Your task to perform on an android device: turn on improve location accuracy Image 0: 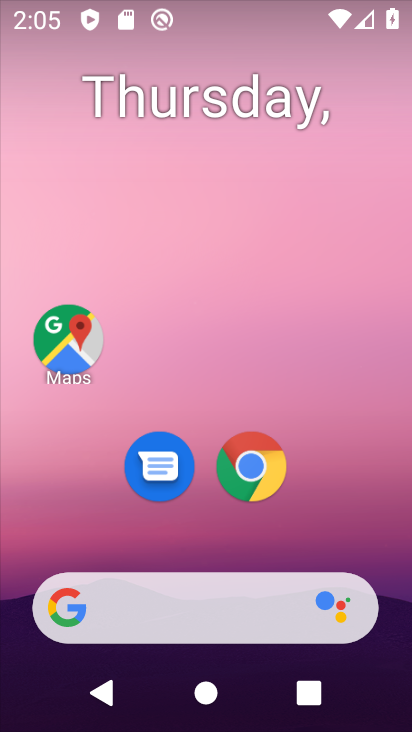
Step 0: drag from (213, 497) to (223, 83)
Your task to perform on an android device: turn on improve location accuracy Image 1: 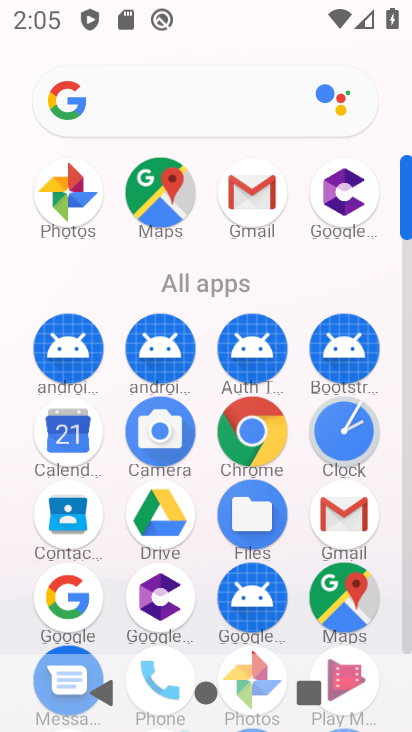
Step 1: drag from (213, 457) to (213, 217)
Your task to perform on an android device: turn on improve location accuracy Image 2: 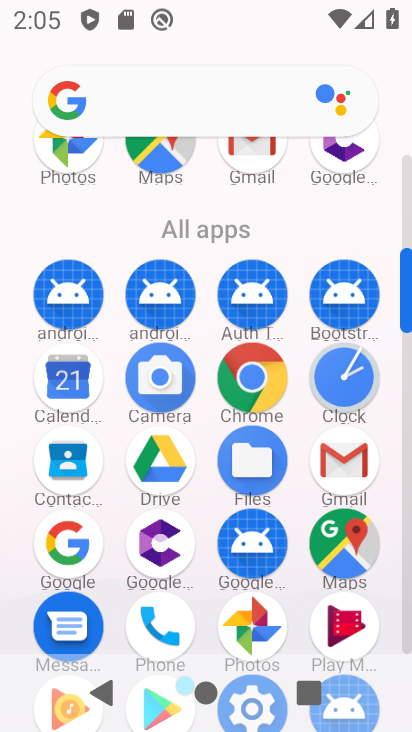
Step 2: drag from (209, 620) to (243, 307)
Your task to perform on an android device: turn on improve location accuracy Image 3: 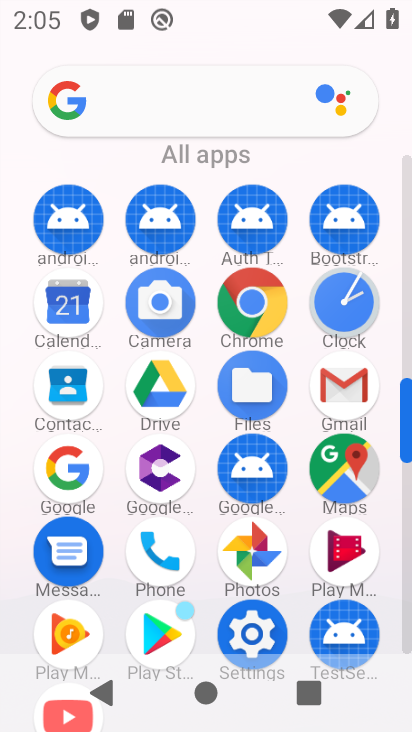
Step 3: click (241, 631)
Your task to perform on an android device: turn on improve location accuracy Image 4: 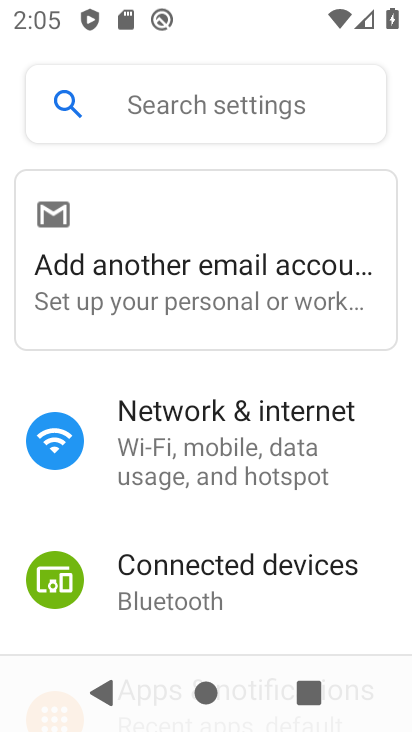
Step 4: drag from (271, 598) to (305, 284)
Your task to perform on an android device: turn on improve location accuracy Image 5: 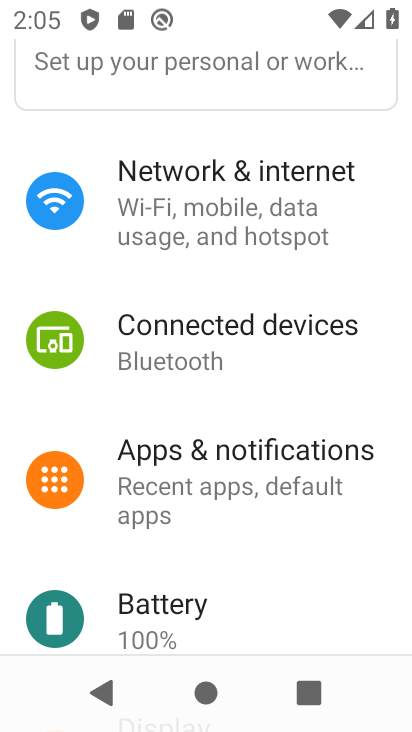
Step 5: drag from (264, 520) to (327, 227)
Your task to perform on an android device: turn on improve location accuracy Image 6: 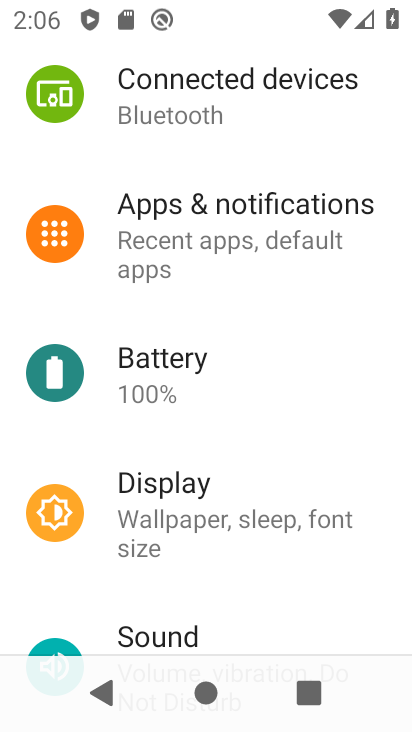
Step 6: drag from (247, 488) to (271, 217)
Your task to perform on an android device: turn on improve location accuracy Image 7: 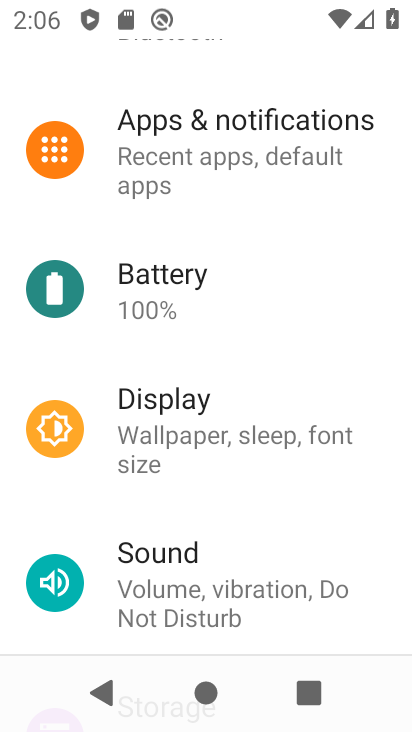
Step 7: drag from (219, 543) to (246, 207)
Your task to perform on an android device: turn on improve location accuracy Image 8: 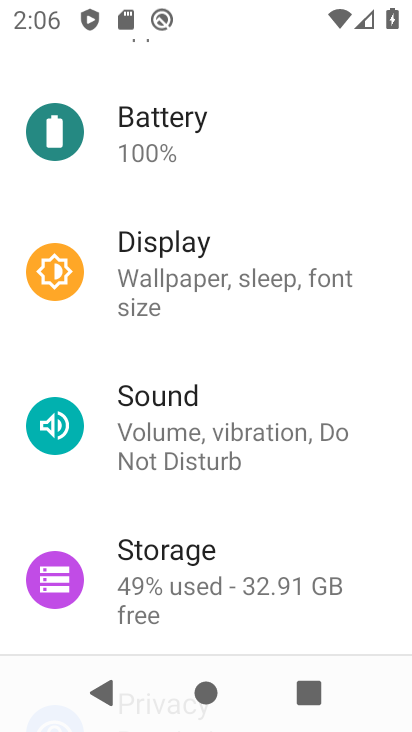
Step 8: drag from (252, 517) to (282, 255)
Your task to perform on an android device: turn on improve location accuracy Image 9: 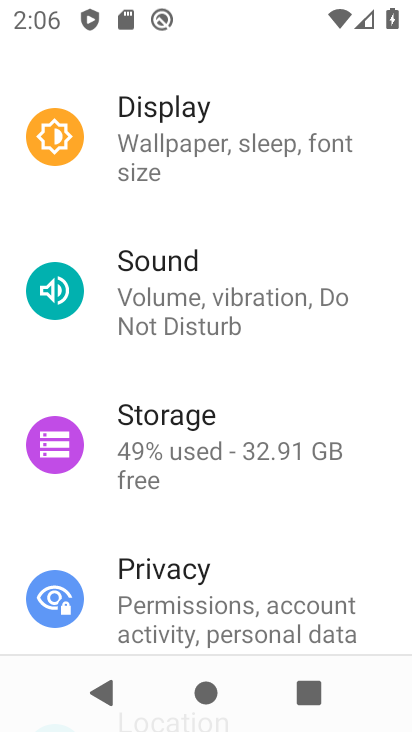
Step 9: drag from (284, 543) to (313, 274)
Your task to perform on an android device: turn on improve location accuracy Image 10: 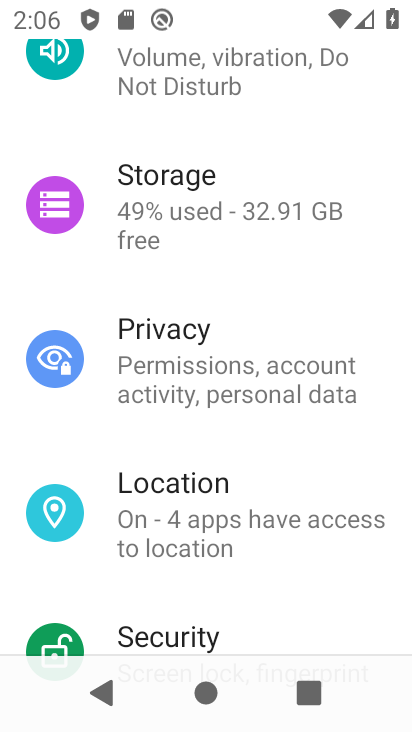
Step 10: click (224, 482)
Your task to perform on an android device: turn on improve location accuracy Image 11: 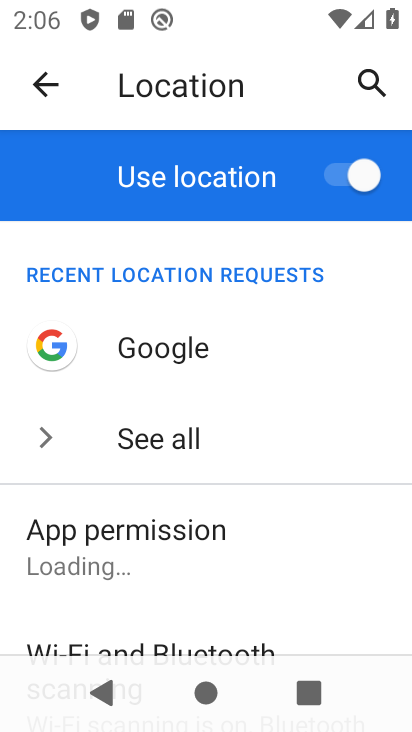
Step 11: drag from (280, 612) to (301, 312)
Your task to perform on an android device: turn on improve location accuracy Image 12: 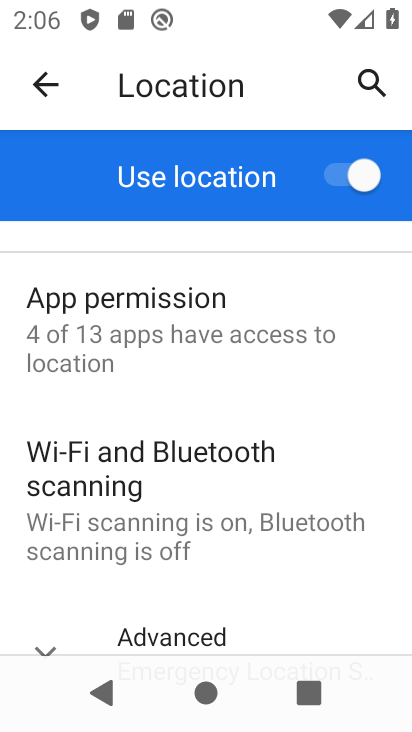
Step 12: drag from (264, 565) to (291, 286)
Your task to perform on an android device: turn on improve location accuracy Image 13: 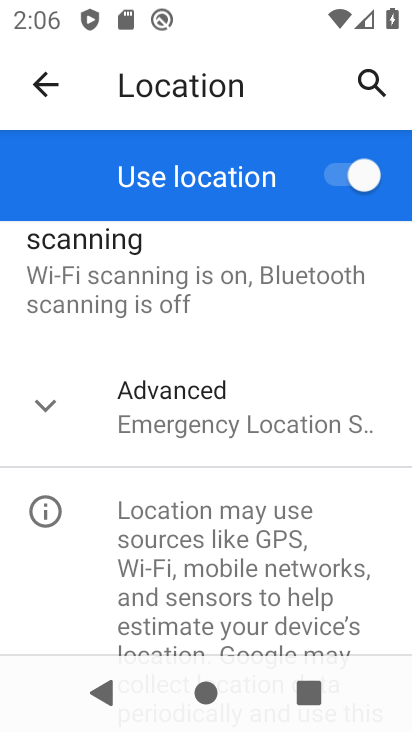
Step 13: click (231, 414)
Your task to perform on an android device: turn on improve location accuracy Image 14: 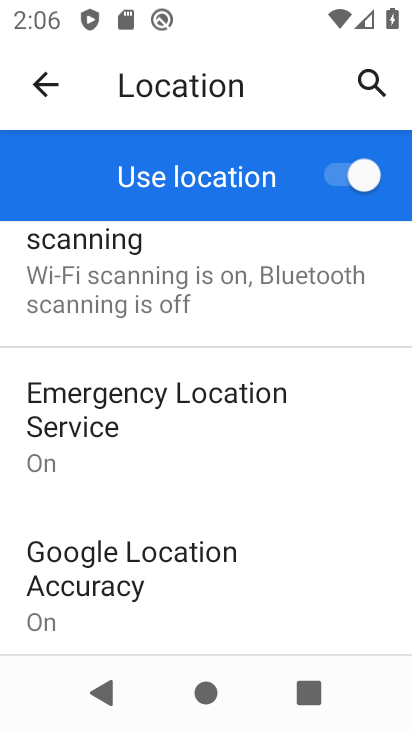
Step 14: drag from (272, 585) to (305, 322)
Your task to perform on an android device: turn on improve location accuracy Image 15: 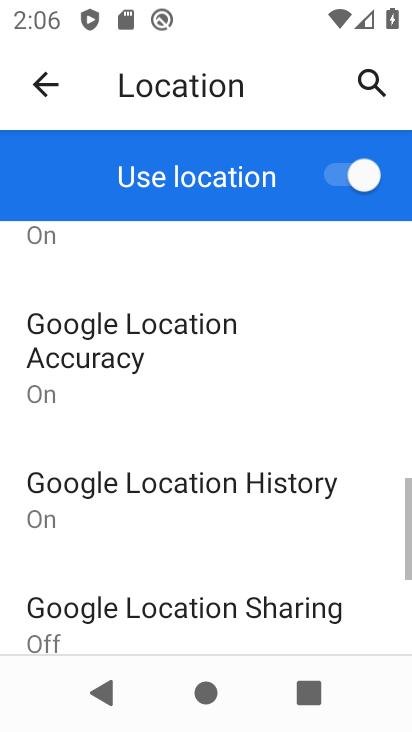
Step 15: click (236, 339)
Your task to perform on an android device: turn on improve location accuracy Image 16: 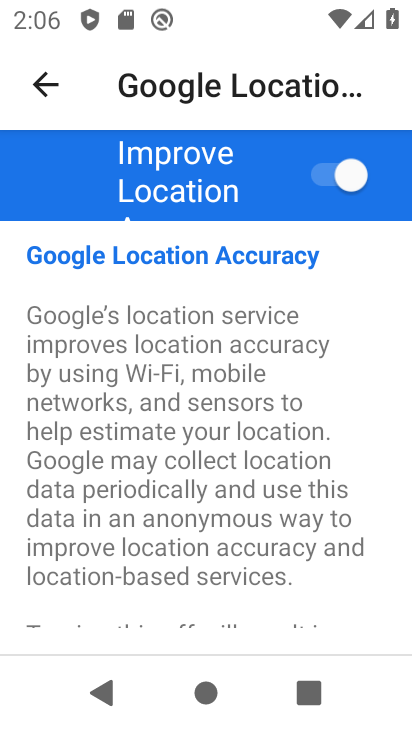
Step 16: task complete